Your task to perform on an android device: Go to Amazon Image 0: 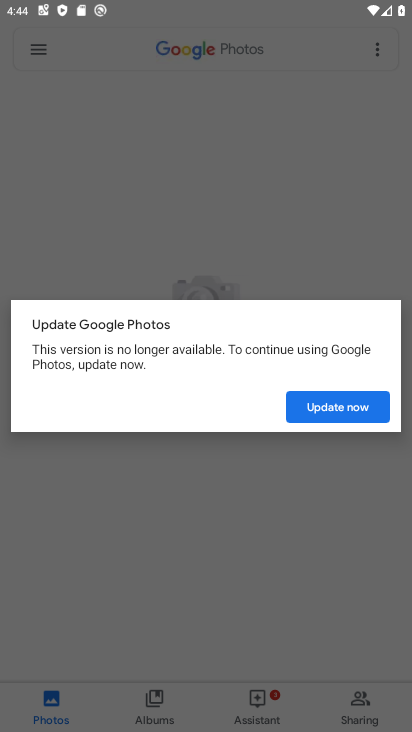
Step 0: press back button
Your task to perform on an android device: Go to Amazon Image 1: 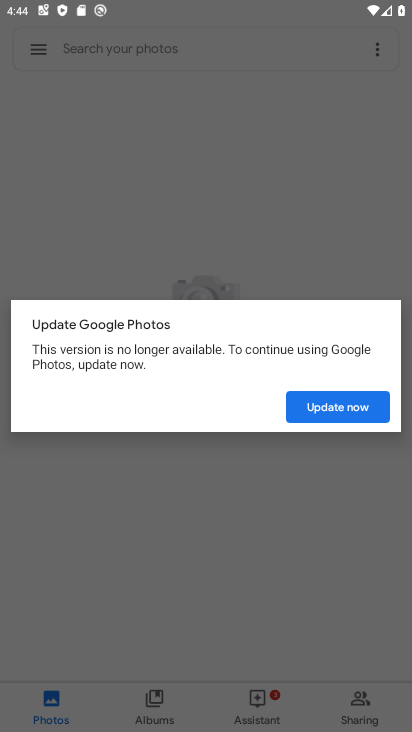
Step 1: click (328, 409)
Your task to perform on an android device: Go to Amazon Image 2: 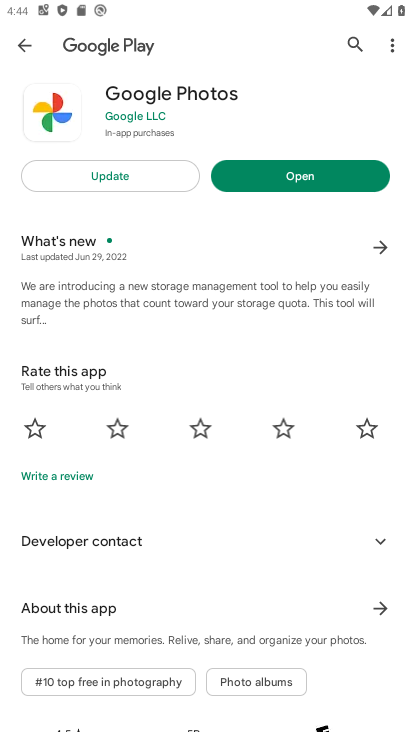
Step 2: press back button
Your task to perform on an android device: Go to Amazon Image 3: 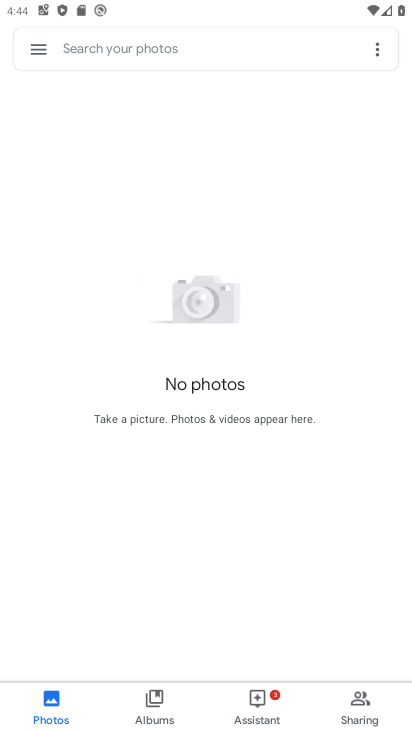
Step 3: press home button
Your task to perform on an android device: Go to Amazon Image 4: 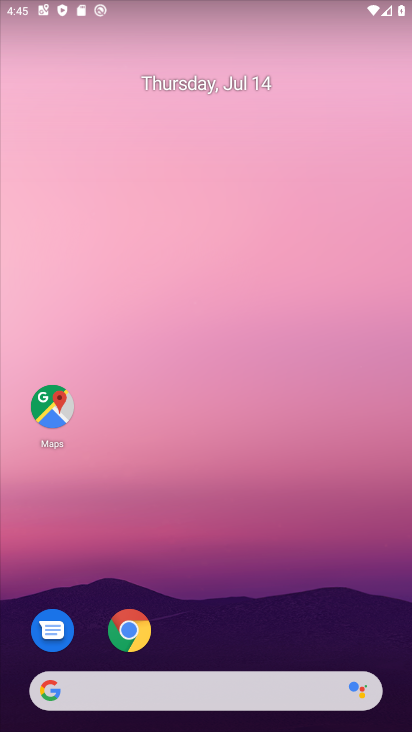
Step 4: click (128, 634)
Your task to perform on an android device: Go to Amazon Image 5: 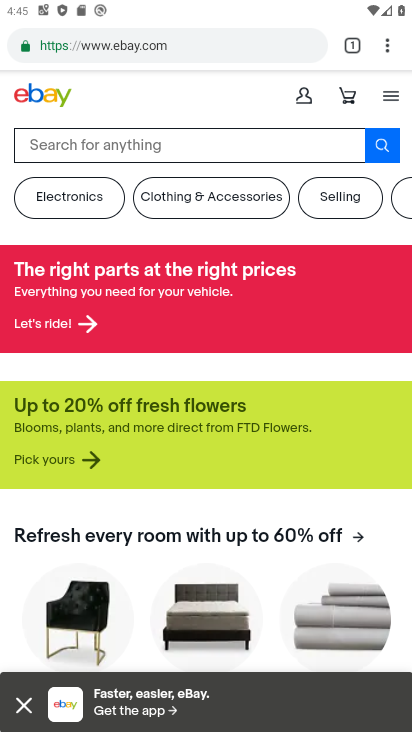
Step 5: click (350, 39)
Your task to perform on an android device: Go to Amazon Image 6: 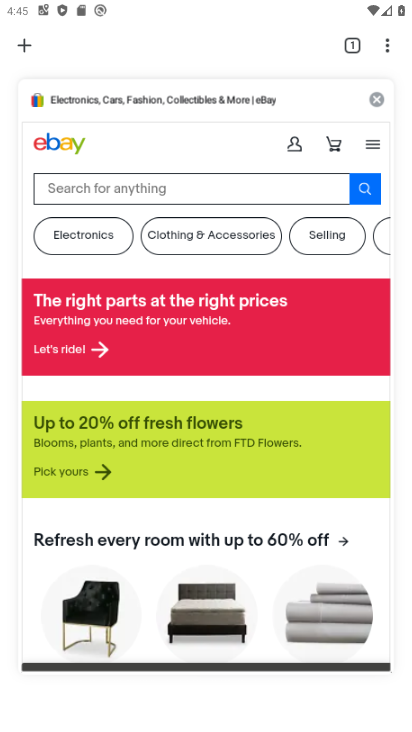
Step 6: click (20, 38)
Your task to perform on an android device: Go to Amazon Image 7: 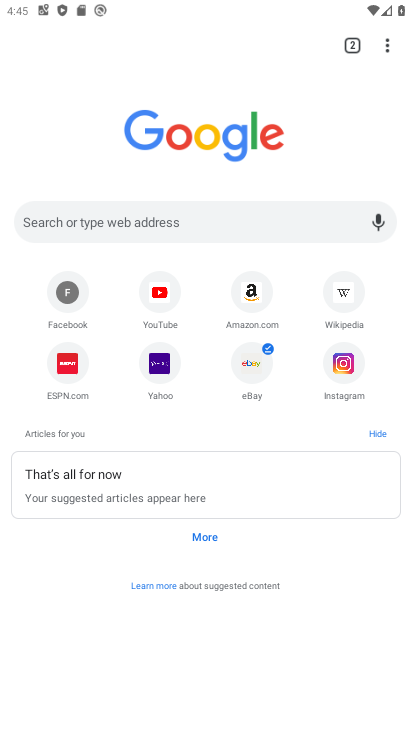
Step 7: click (249, 291)
Your task to perform on an android device: Go to Amazon Image 8: 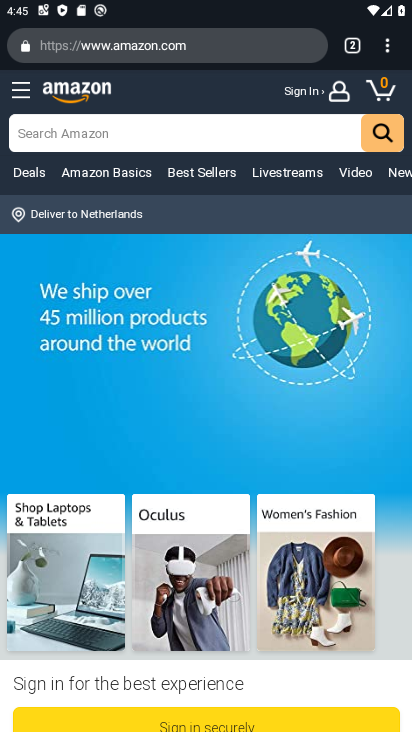
Step 8: task complete